Your task to perform on an android device: Open CNN.com Image 0: 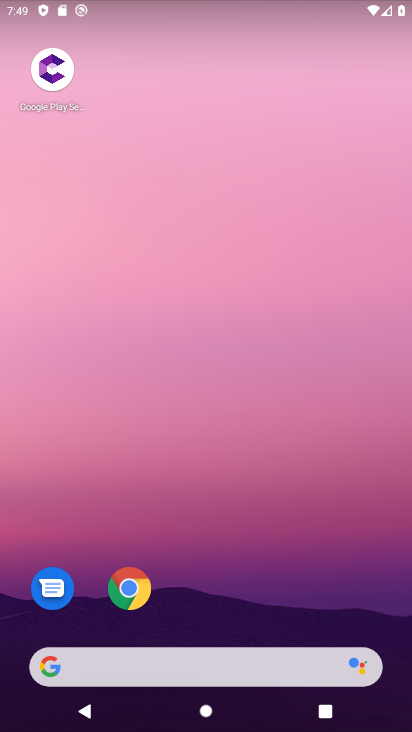
Step 0: drag from (331, 553) to (312, 106)
Your task to perform on an android device: Open CNN.com Image 1: 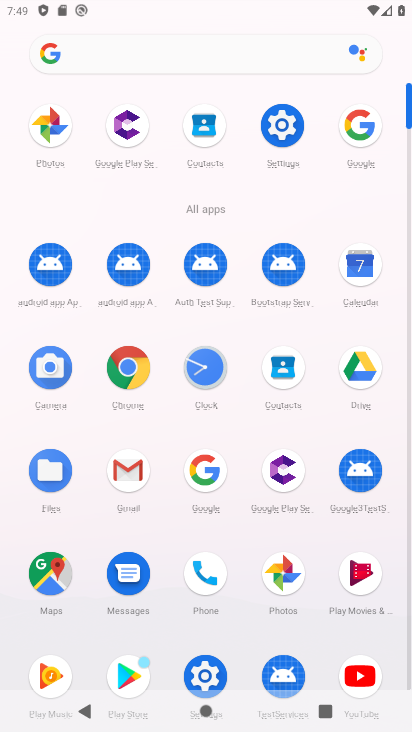
Step 1: click (131, 375)
Your task to perform on an android device: Open CNN.com Image 2: 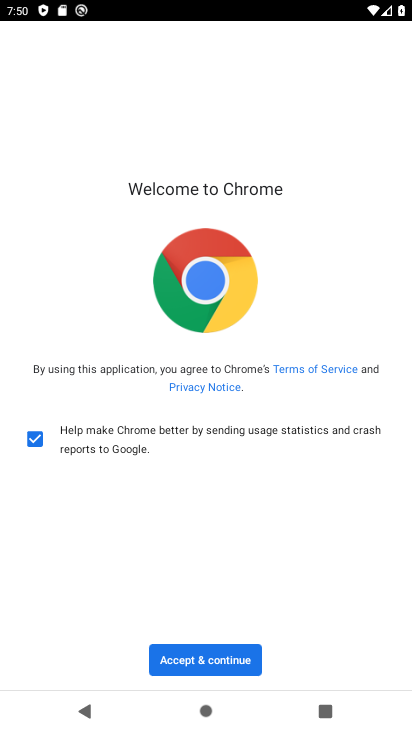
Step 2: click (244, 664)
Your task to perform on an android device: Open CNN.com Image 3: 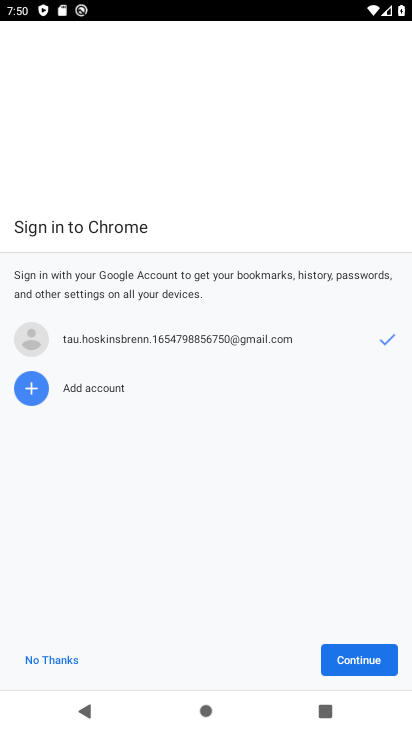
Step 3: click (370, 660)
Your task to perform on an android device: Open CNN.com Image 4: 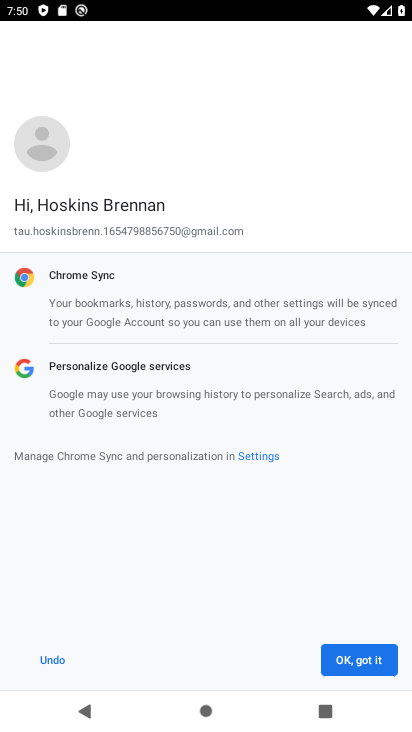
Step 4: click (370, 658)
Your task to perform on an android device: Open CNN.com Image 5: 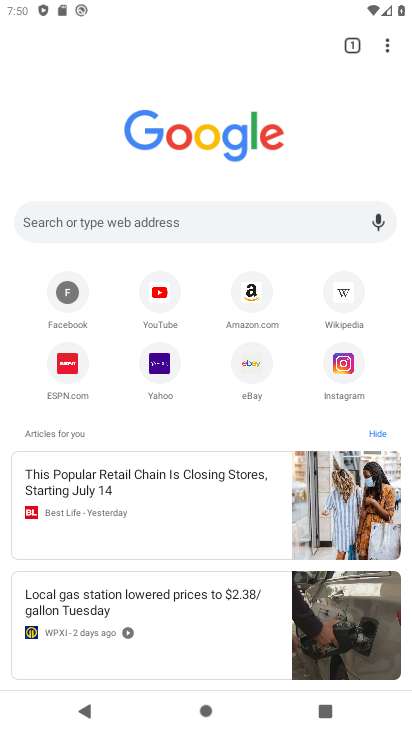
Step 5: click (158, 229)
Your task to perform on an android device: Open CNN.com Image 6: 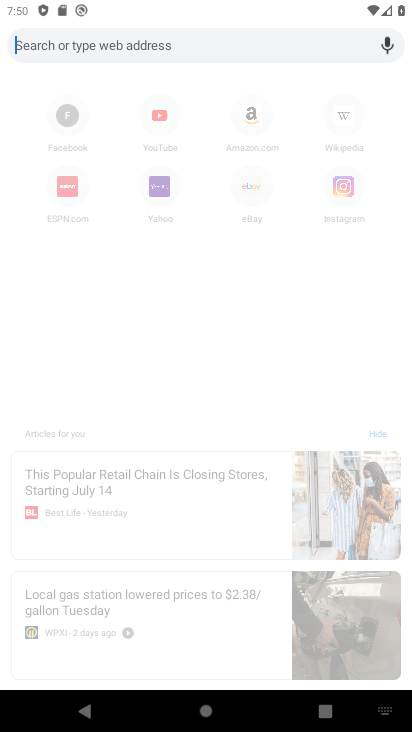
Step 6: type "cnn.com"
Your task to perform on an android device: Open CNN.com Image 7: 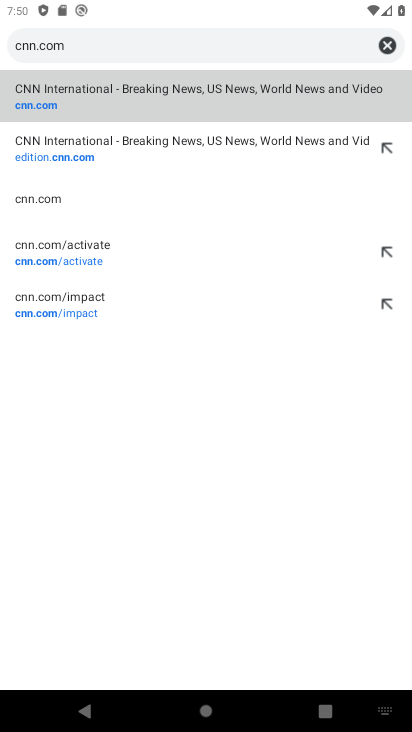
Step 7: click (49, 104)
Your task to perform on an android device: Open CNN.com Image 8: 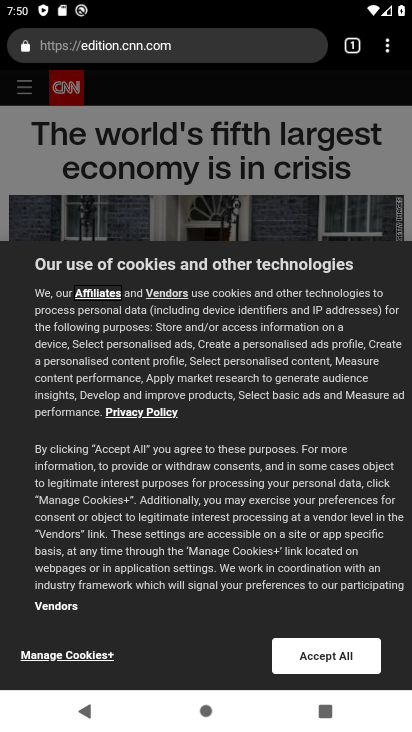
Step 8: task complete